Your task to perform on an android device: turn off notifications in google photos Image 0: 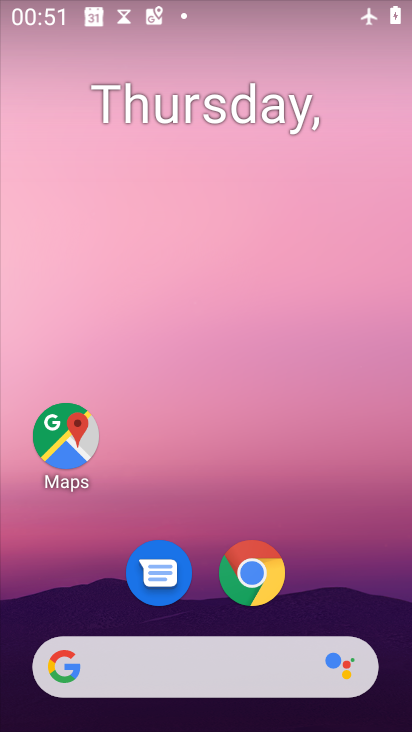
Step 0: drag from (307, 578) to (285, 219)
Your task to perform on an android device: turn off notifications in google photos Image 1: 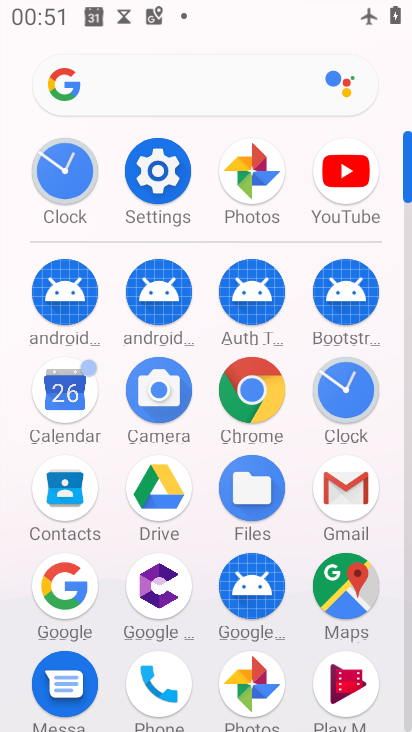
Step 1: click (242, 659)
Your task to perform on an android device: turn off notifications in google photos Image 2: 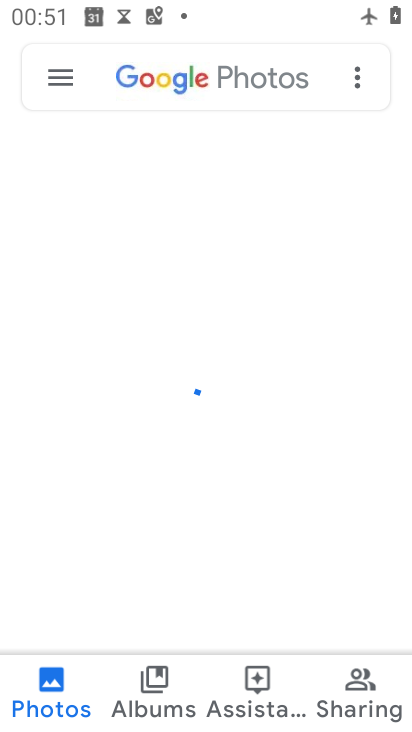
Step 2: click (65, 78)
Your task to perform on an android device: turn off notifications in google photos Image 3: 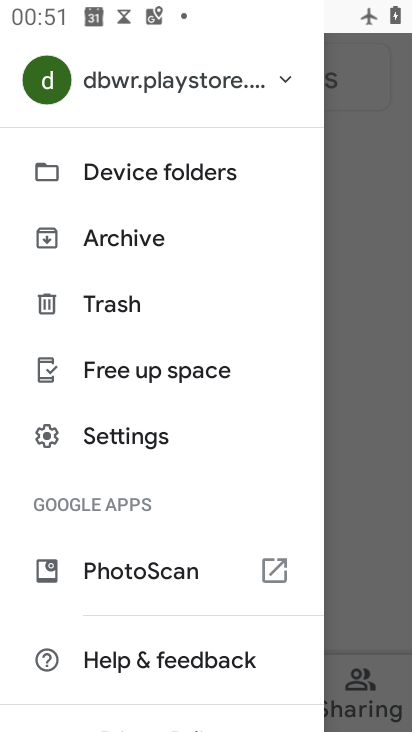
Step 3: click (123, 435)
Your task to perform on an android device: turn off notifications in google photos Image 4: 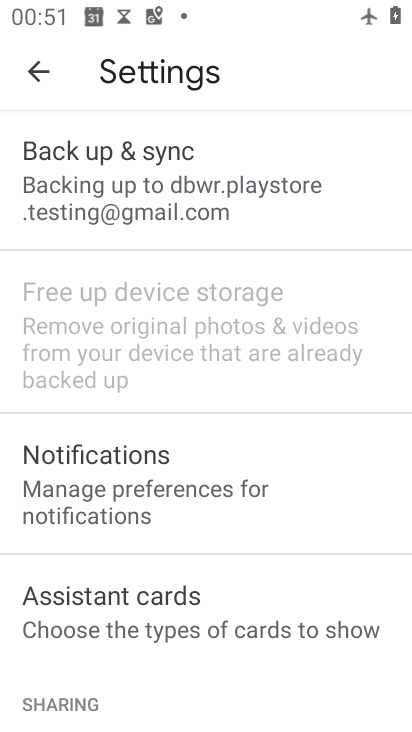
Step 4: click (141, 492)
Your task to perform on an android device: turn off notifications in google photos Image 5: 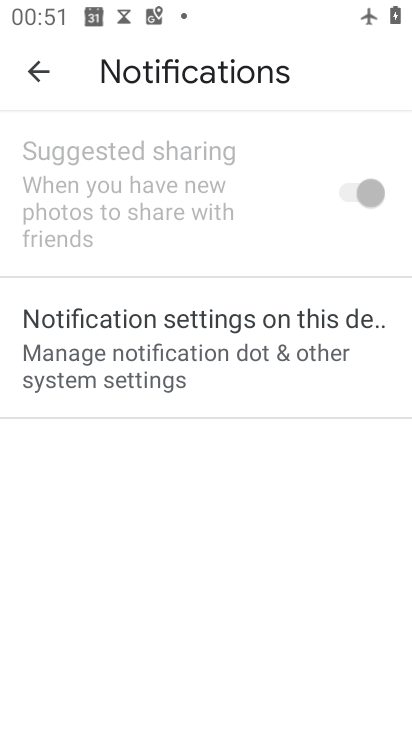
Step 5: click (243, 352)
Your task to perform on an android device: turn off notifications in google photos Image 6: 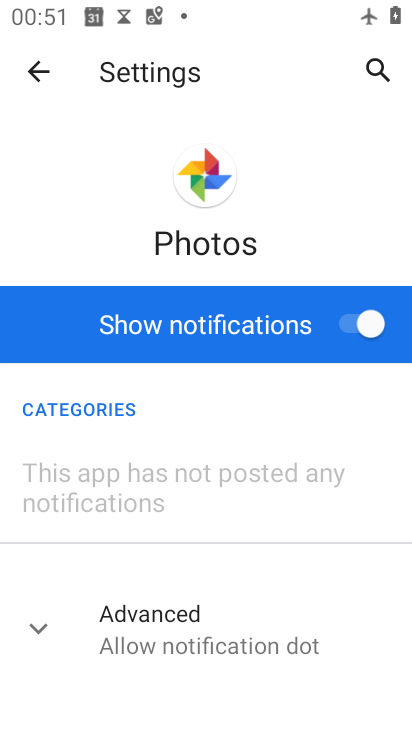
Step 6: click (358, 323)
Your task to perform on an android device: turn off notifications in google photos Image 7: 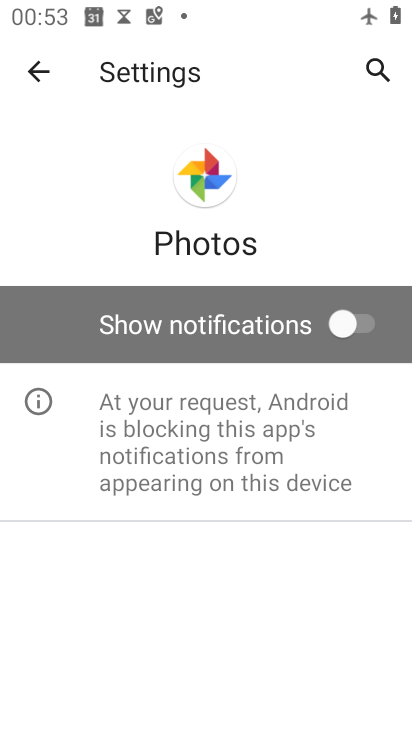
Step 7: task complete